Your task to perform on an android device: Open my contact list Image 0: 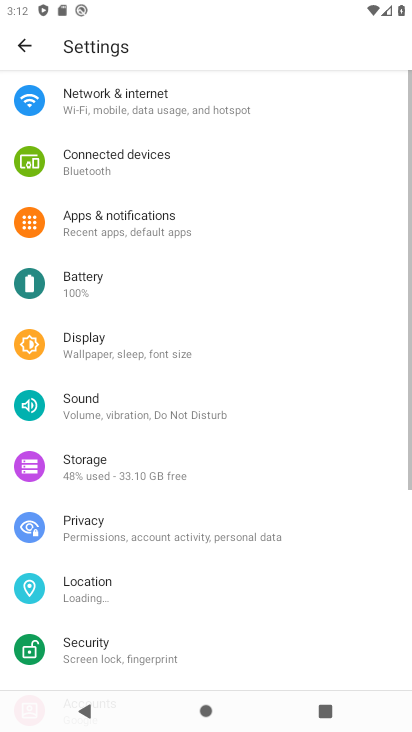
Step 0: press home button
Your task to perform on an android device: Open my contact list Image 1: 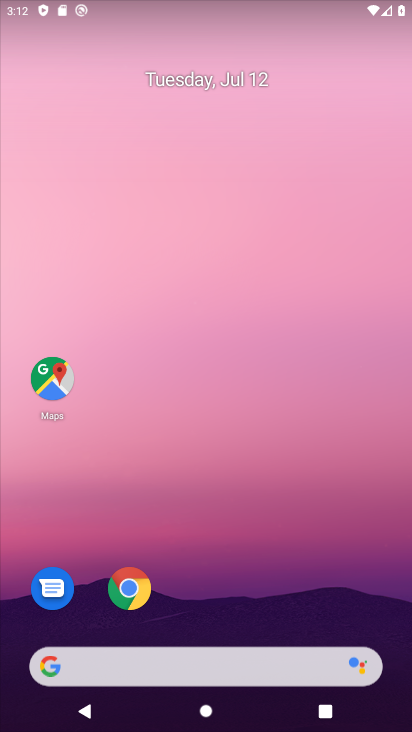
Step 1: drag from (248, 552) to (293, 20)
Your task to perform on an android device: Open my contact list Image 2: 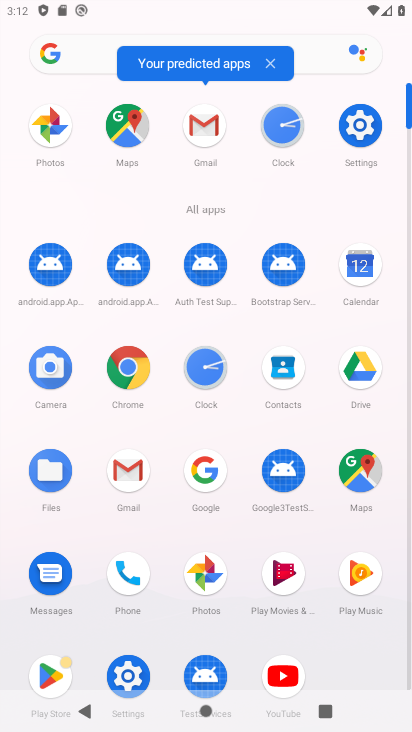
Step 2: click (286, 378)
Your task to perform on an android device: Open my contact list Image 3: 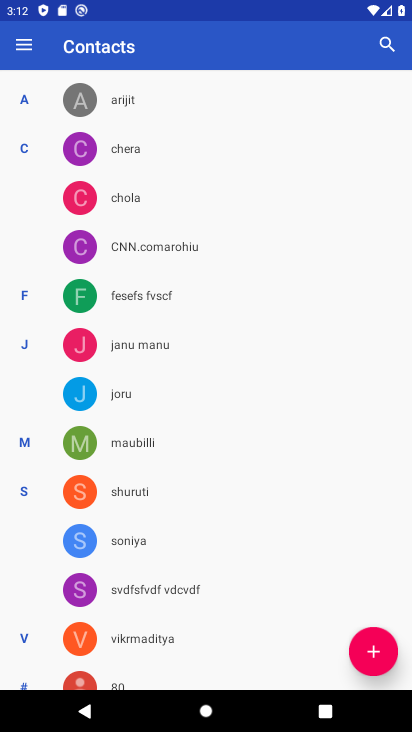
Step 3: task complete